Your task to perform on an android device: uninstall "Calculator" Image 0: 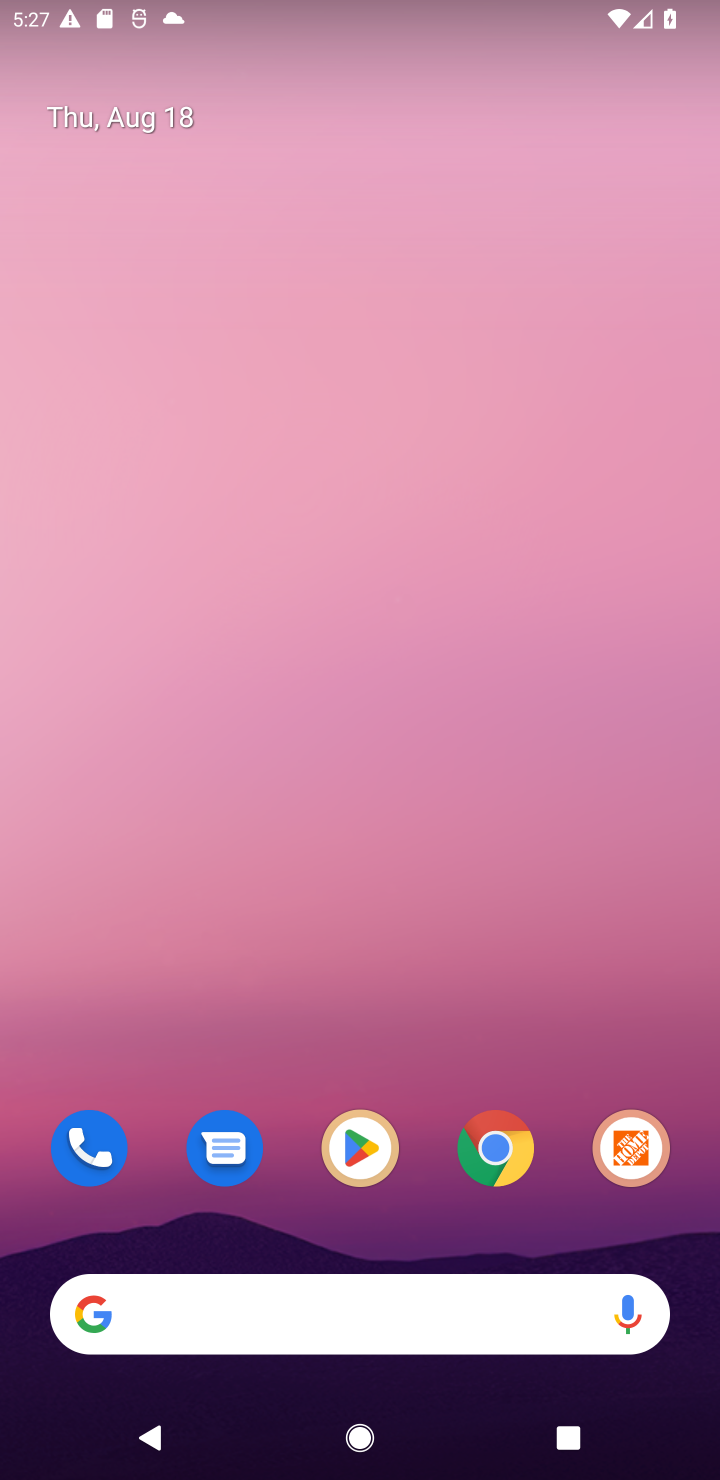
Step 0: drag from (406, 1308) to (514, 252)
Your task to perform on an android device: uninstall "Calculator" Image 1: 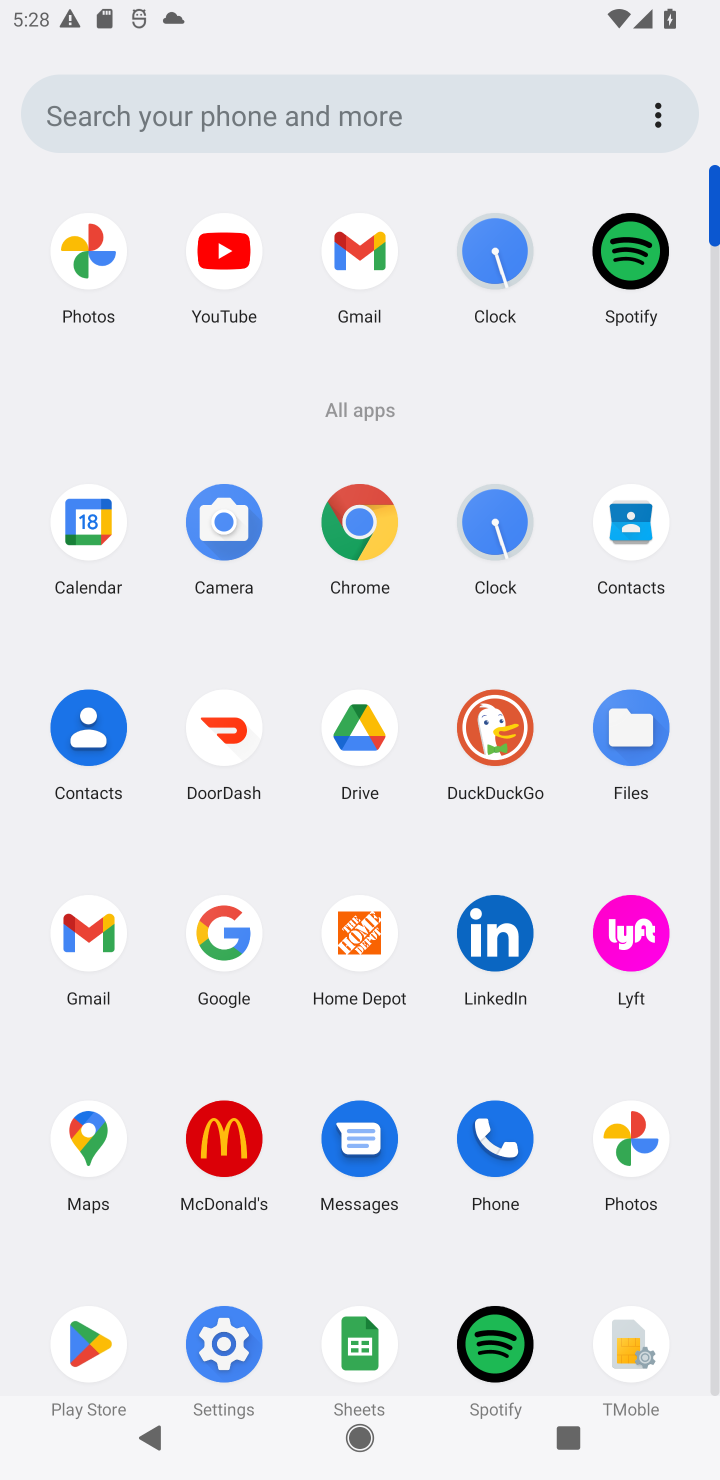
Step 1: click (84, 1364)
Your task to perform on an android device: uninstall "Calculator" Image 2: 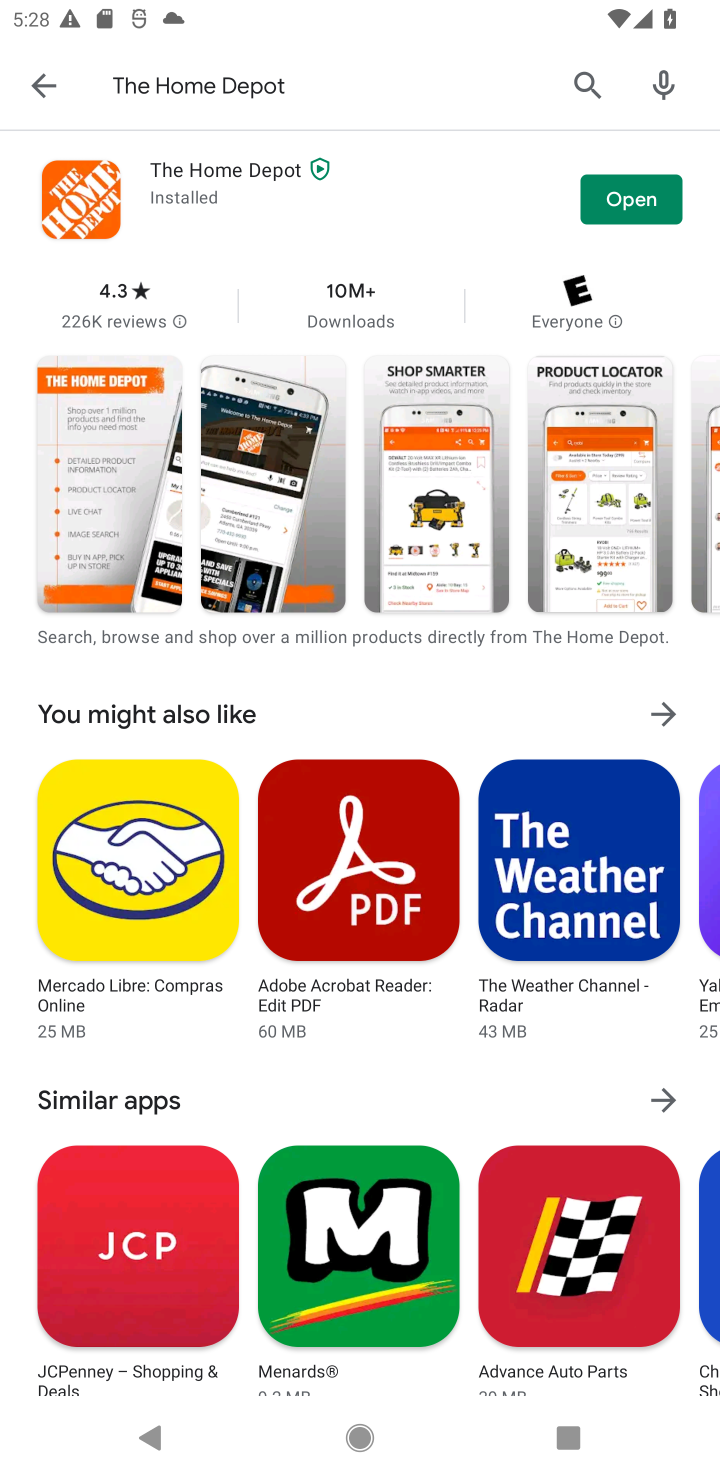
Step 2: press back button
Your task to perform on an android device: uninstall "Calculator" Image 3: 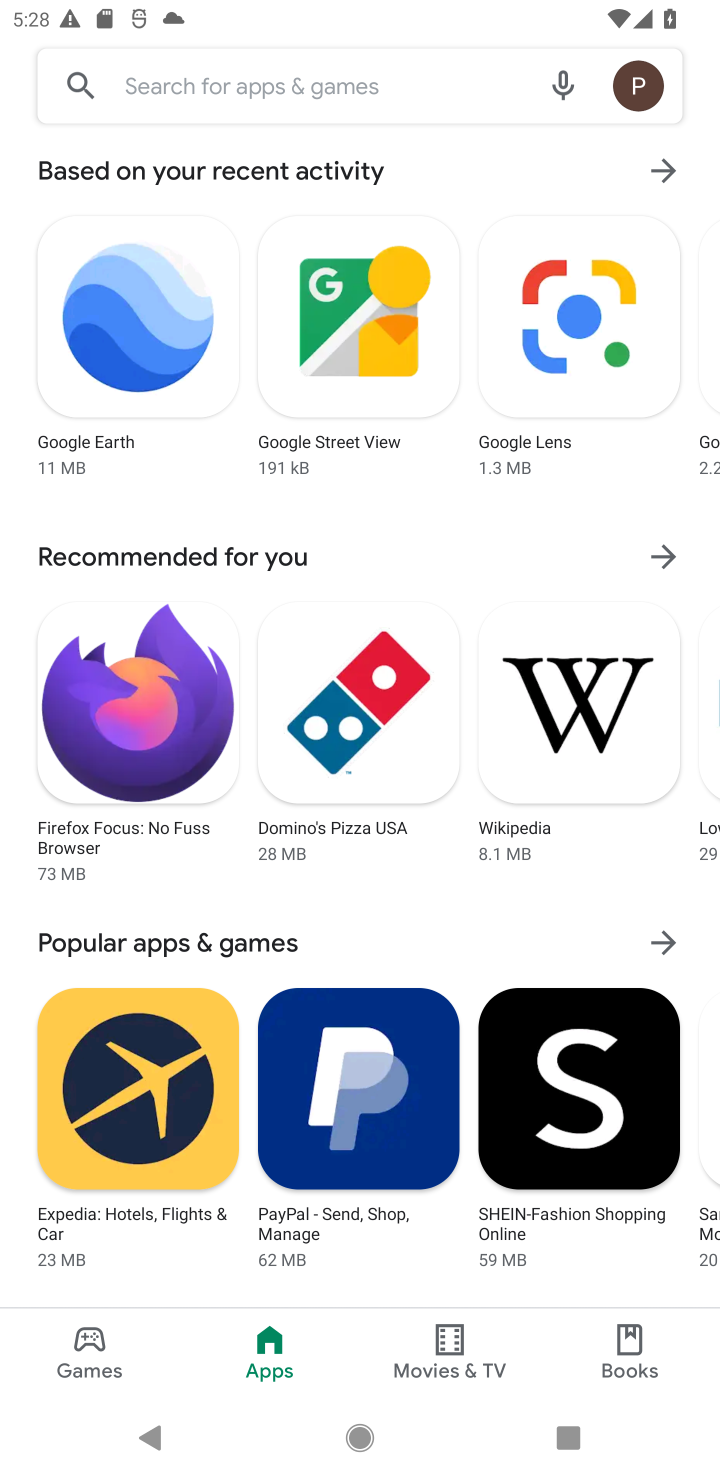
Step 3: click (239, 70)
Your task to perform on an android device: uninstall "Calculator" Image 4: 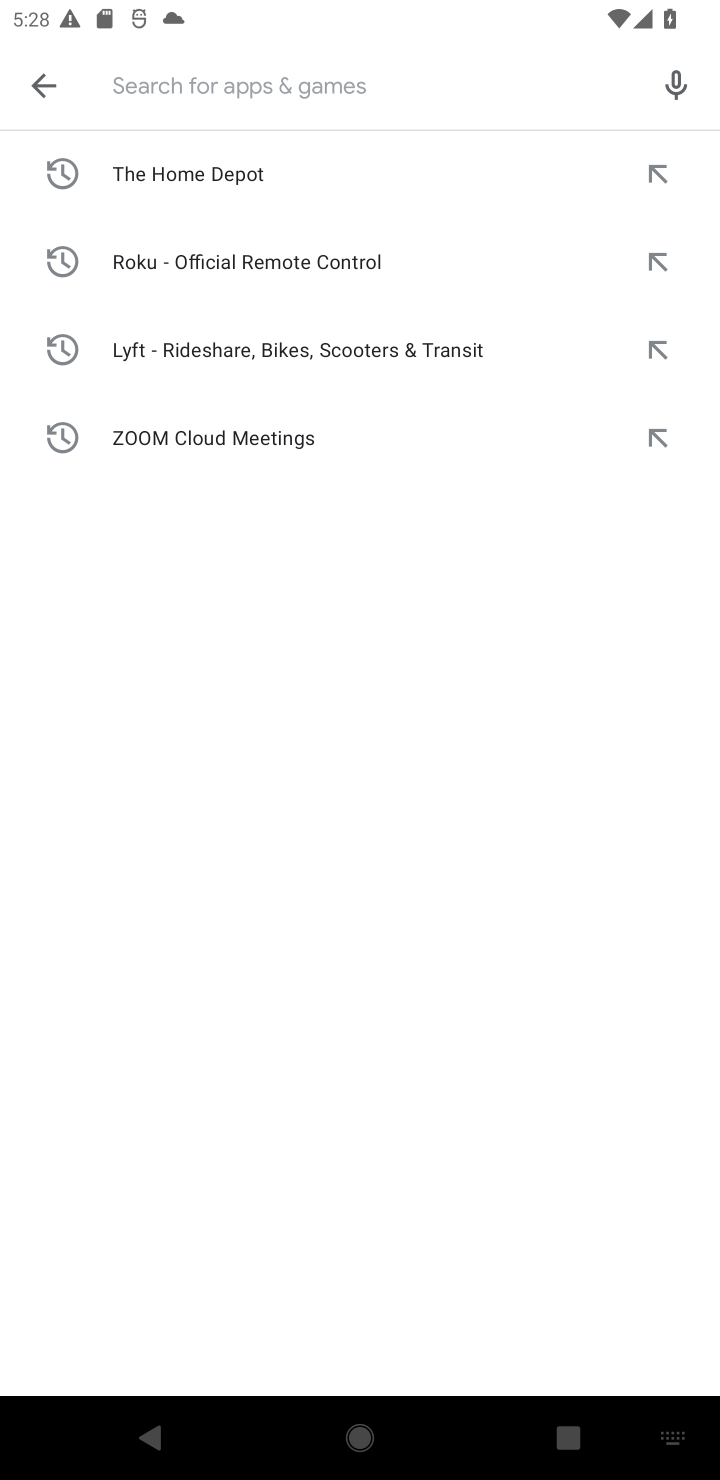
Step 4: type "Calculator"
Your task to perform on an android device: uninstall "Calculator" Image 5: 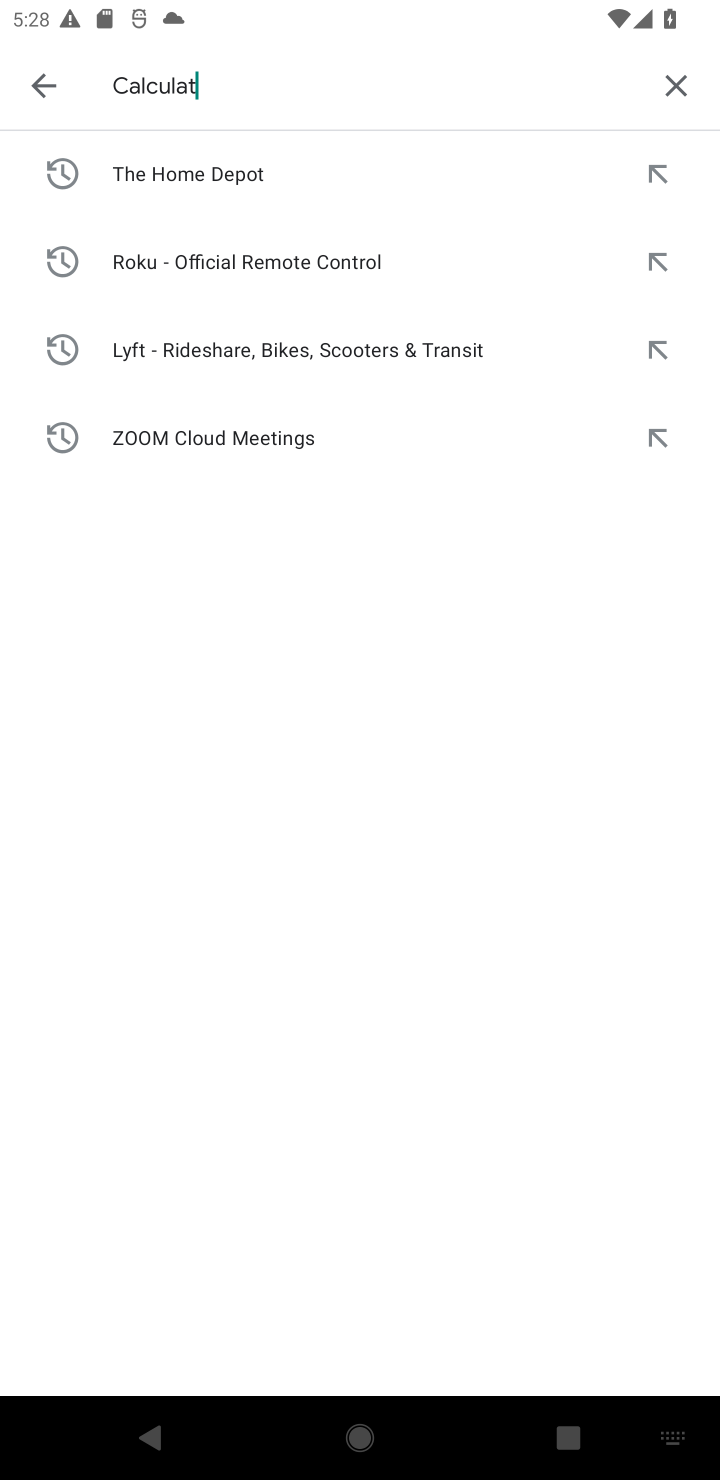
Step 5: press enter
Your task to perform on an android device: uninstall "Calculator" Image 6: 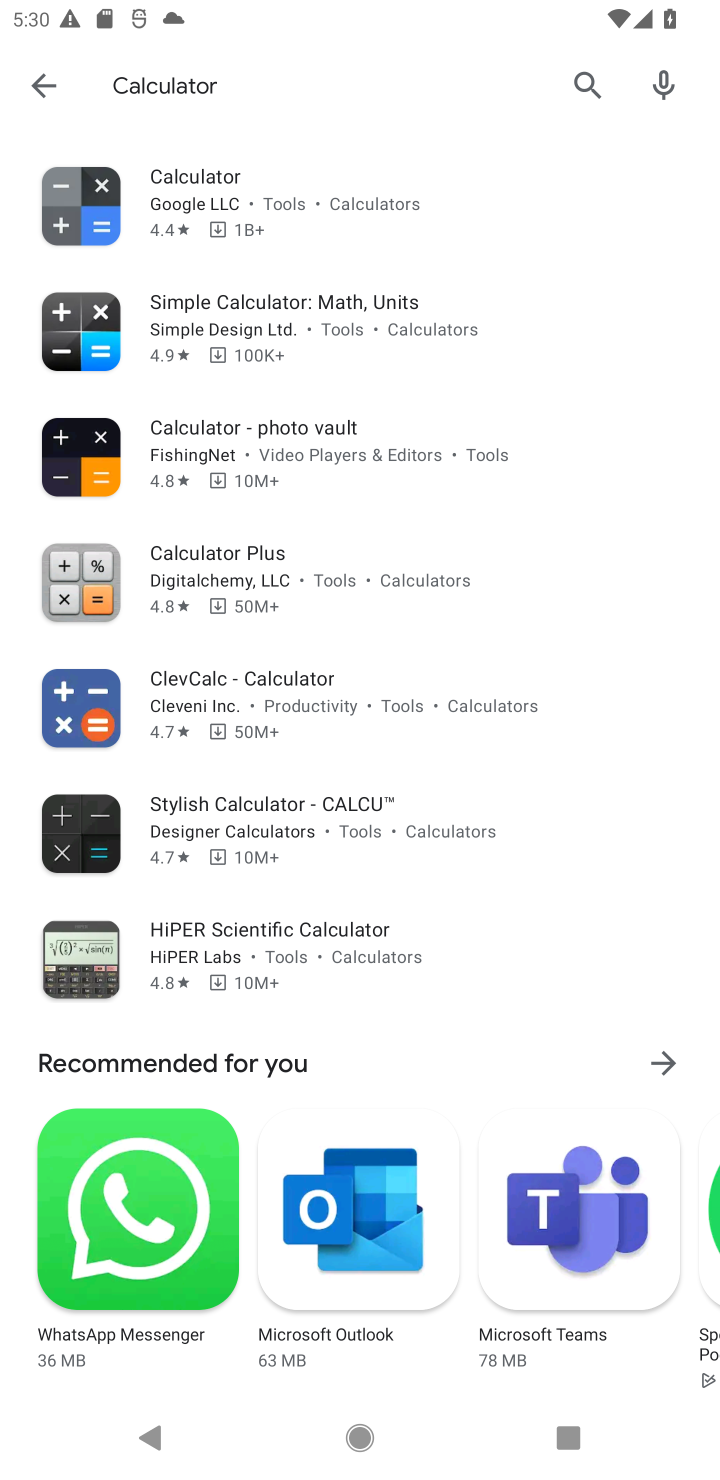
Step 6: click (158, 221)
Your task to perform on an android device: uninstall "Calculator" Image 7: 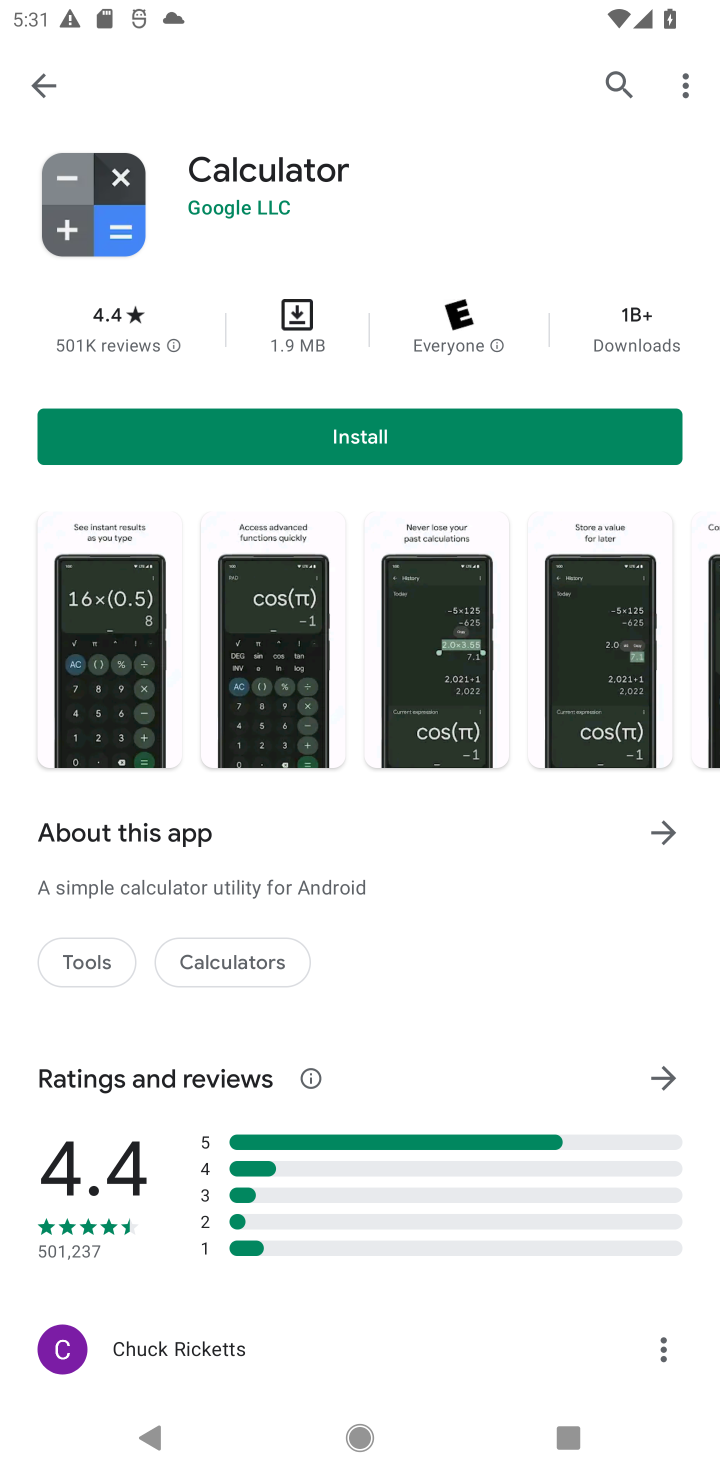
Step 7: task complete